Your task to perform on an android device: see tabs open on other devices in the chrome app Image 0: 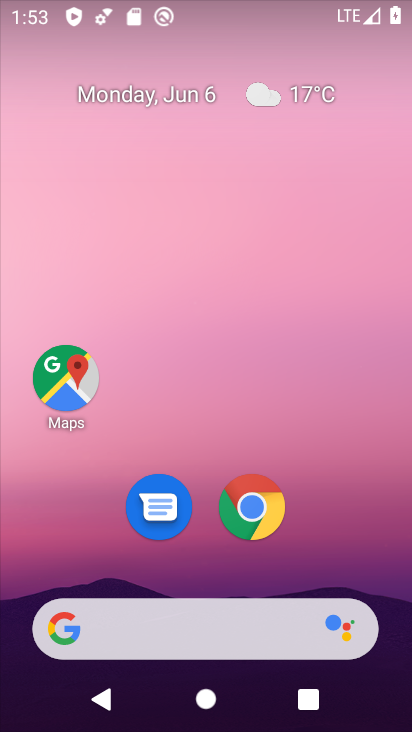
Step 0: drag from (377, 579) to (350, 199)
Your task to perform on an android device: see tabs open on other devices in the chrome app Image 1: 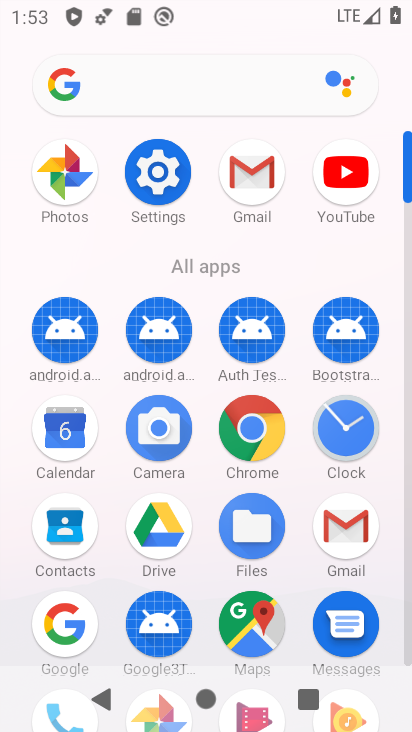
Step 1: click (238, 440)
Your task to perform on an android device: see tabs open on other devices in the chrome app Image 2: 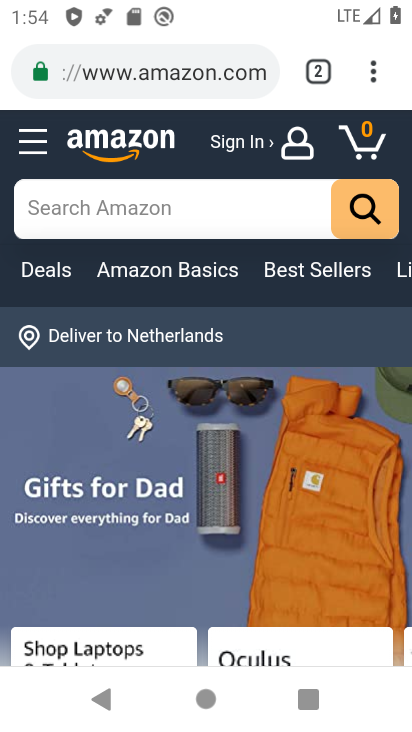
Step 2: click (375, 77)
Your task to perform on an android device: see tabs open on other devices in the chrome app Image 3: 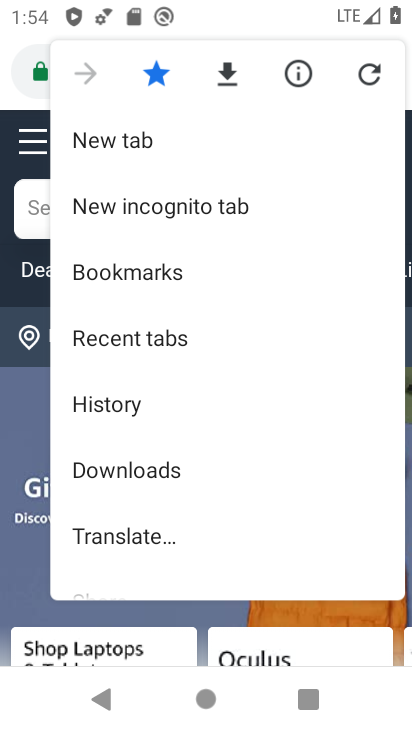
Step 3: click (166, 355)
Your task to perform on an android device: see tabs open on other devices in the chrome app Image 4: 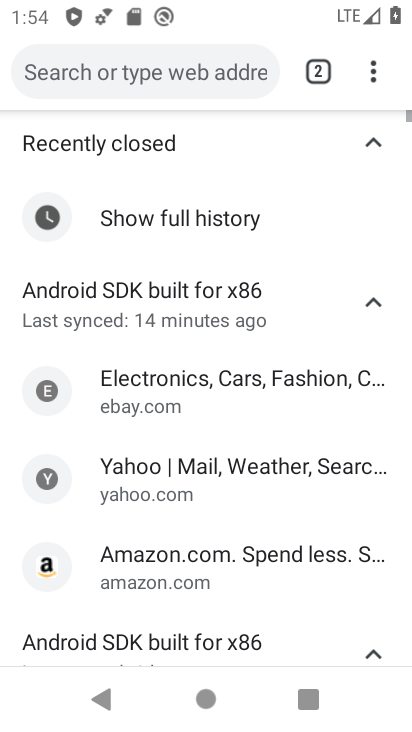
Step 4: task complete